Your task to perform on an android device: Open the web browser Image 0: 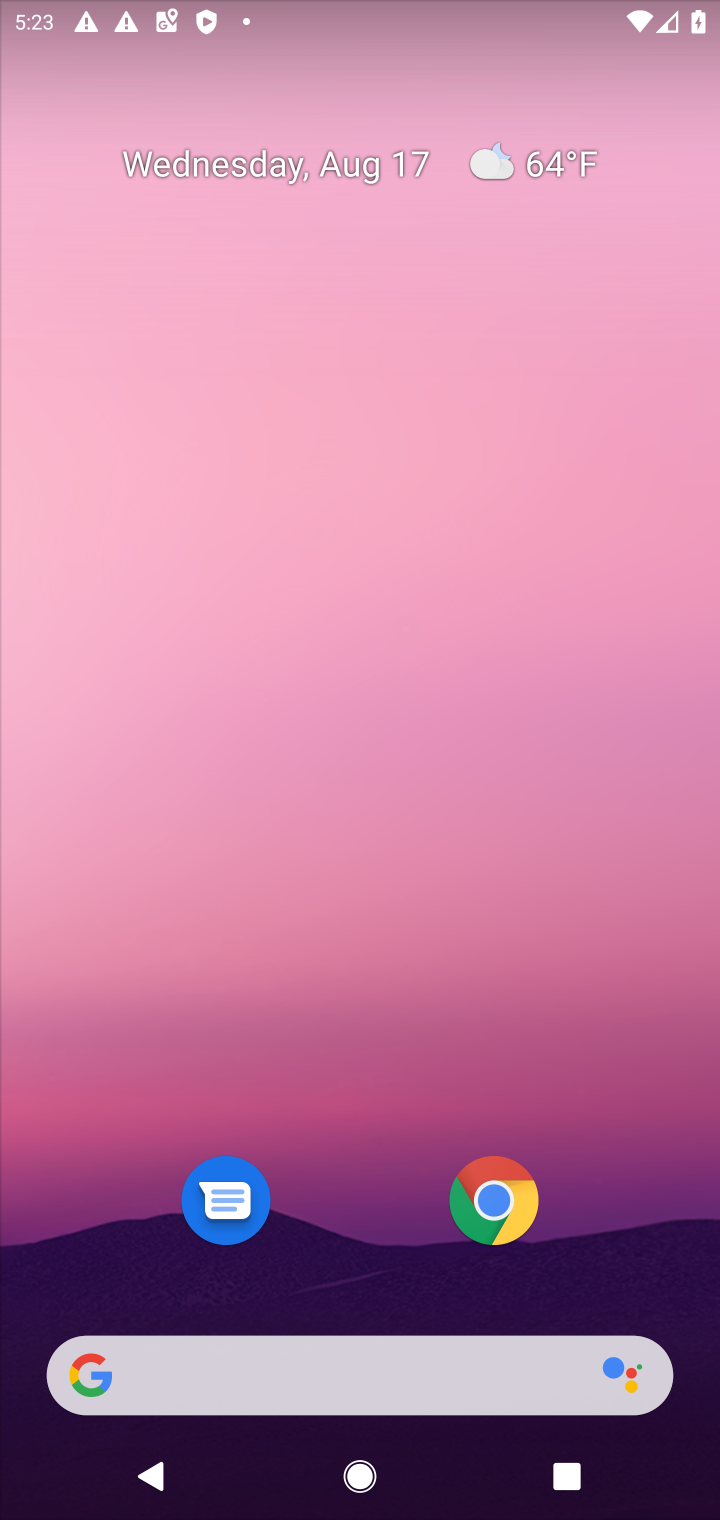
Step 0: click (506, 1189)
Your task to perform on an android device: Open the web browser Image 1: 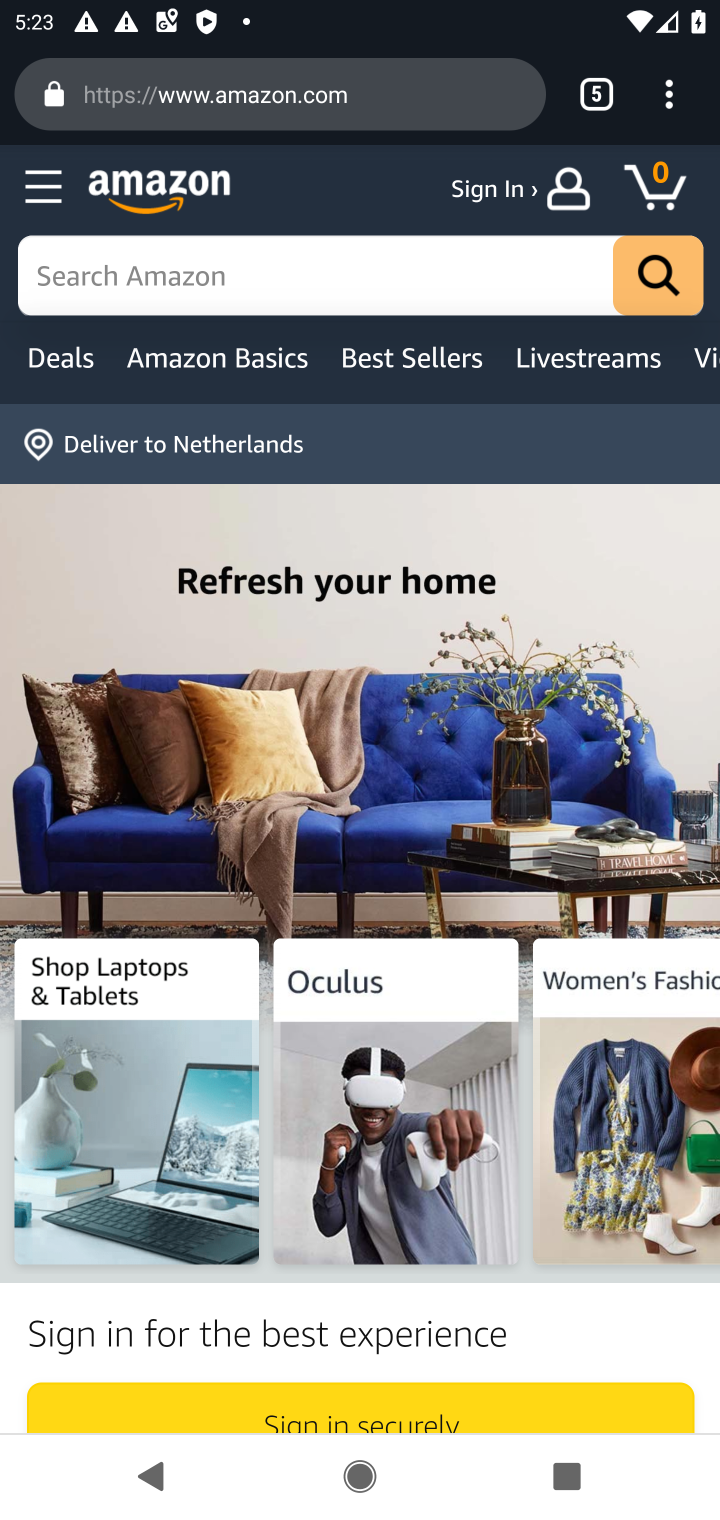
Step 1: task complete